Your task to perform on an android device: Open display settings Image 0: 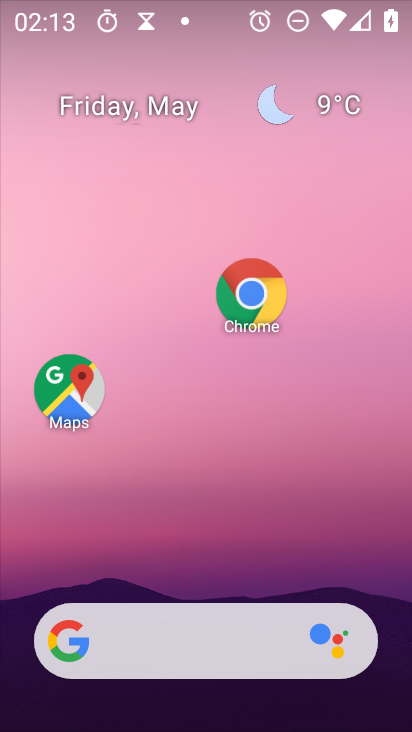
Step 0: drag from (138, 659) to (399, 114)
Your task to perform on an android device: Open display settings Image 1: 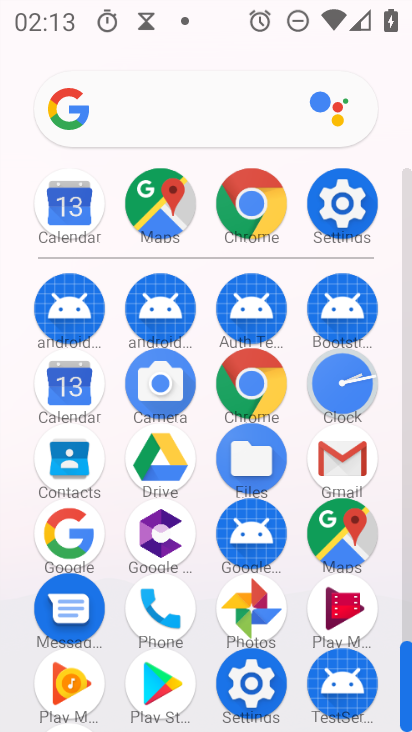
Step 1: click (330, 223)
Your task to perform on an android device: Open display settings Image 2: 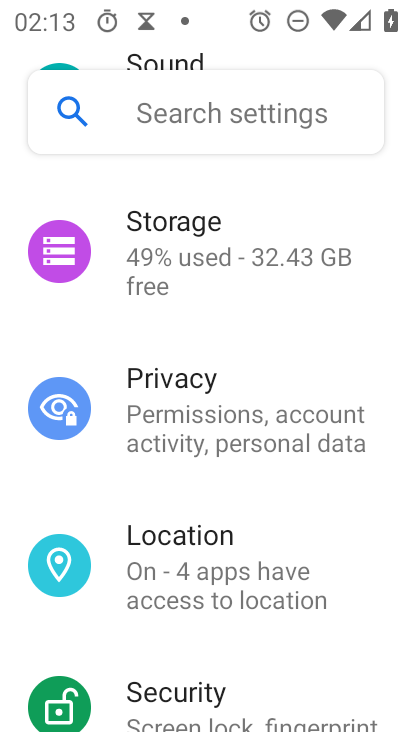
Step 2: drag from (269, 191) to (294, 594)
Your task to perform on an android device: Open display settings Image 3: 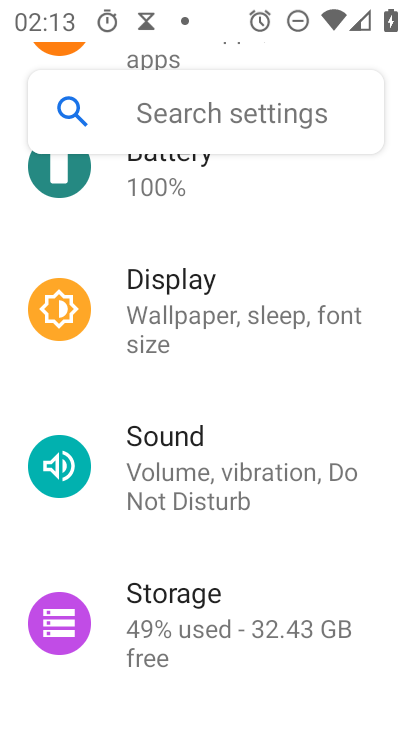
Step 3: click (207, 316)
Your task to perform on an android device: Open display settings Image 4: 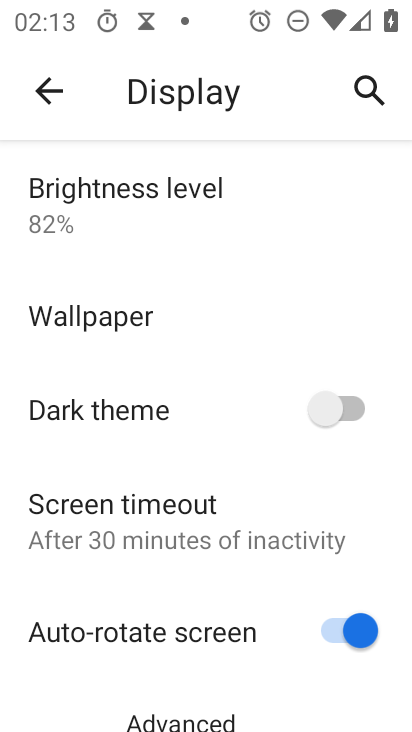
Step 4: task complete